Your task to perform on an android device: turn off translation in the chrome app Image 0: 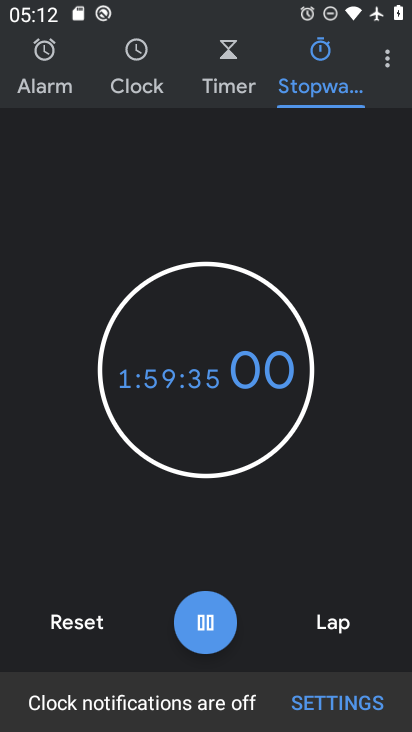
Step 0: press home button
Your task to perform on an android device: turn off translation in the chrome app Image 1: 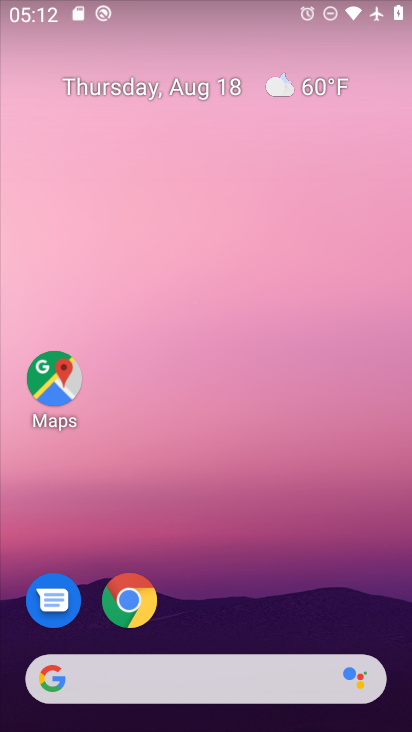
Step 1: click (123, 608)
Your task to perform on an android device: turn off translation in the chrome app Image 2: 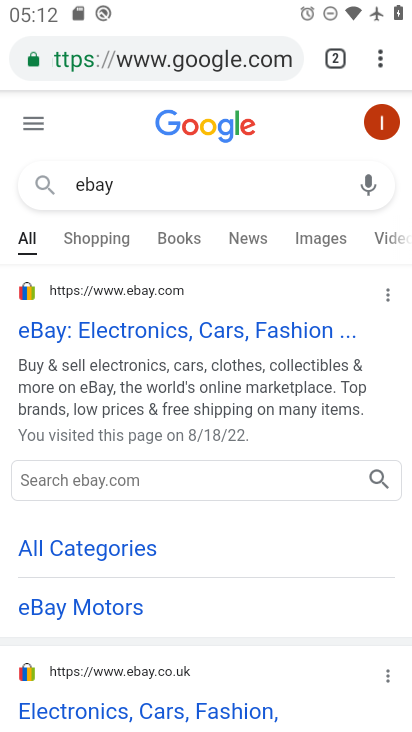
Step 2: drag from (385, 58) to (181, 628)
Your task to perform on an android device: turn off translation in the chrome app Image 3: 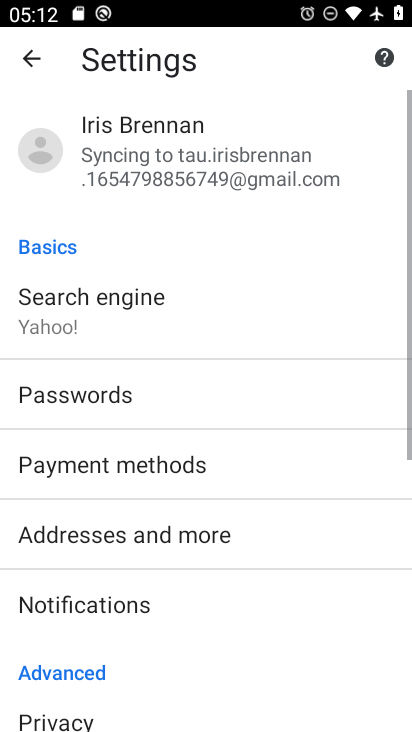
Step 3: drag from (274, 672) to (325, 57)
Your task to perform on an android device: turn off translation in the chrome app Image 4: 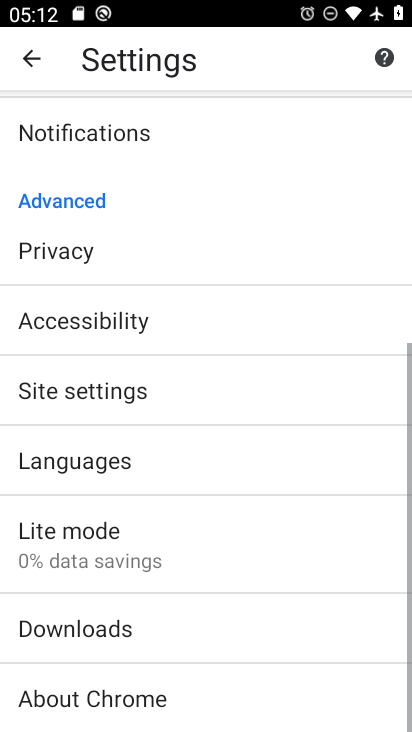
Step 4: click (80, 472)
Your task to perform on an android device: turn off translation in the chrome app Image 5: 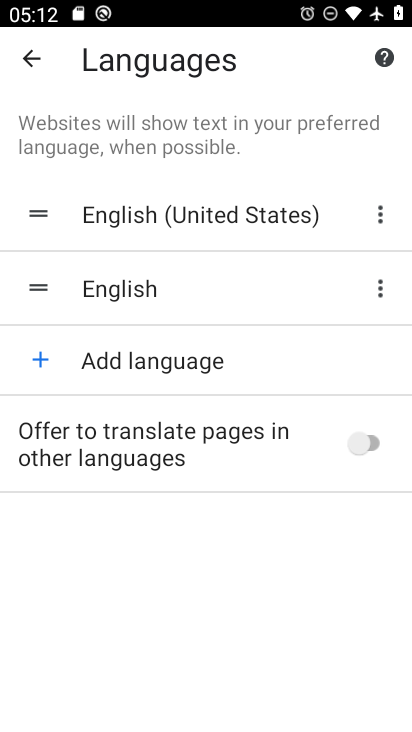
Step 5: task complete